Your task to perform on an android device: Go to Amazon Image 0: 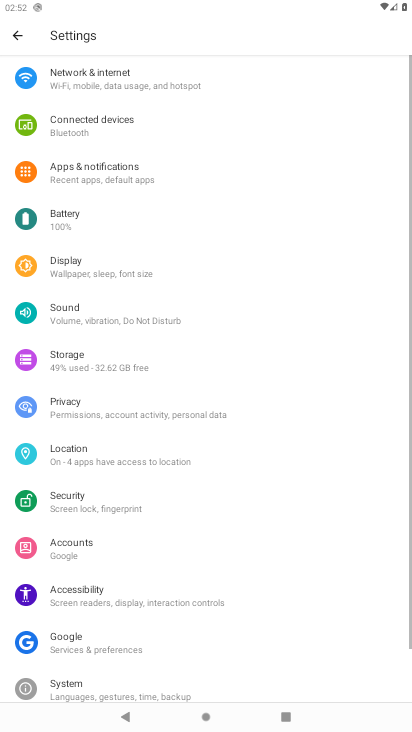
Step 0: press home button
Your task to perform on an android device: Go to Amazon Image 1: 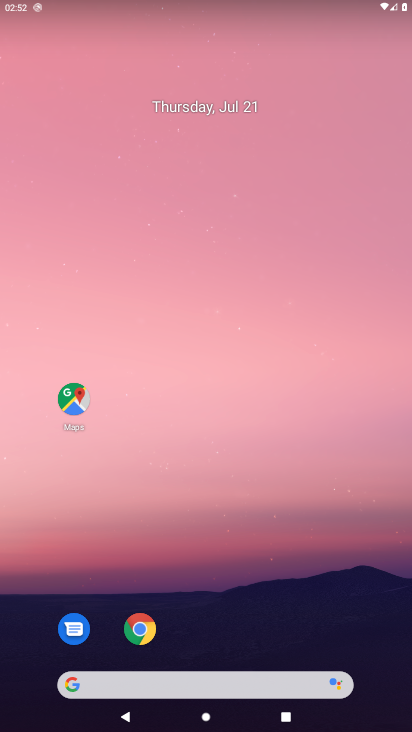
Step 1: click (107, 686)
Your task to perform on an android device: Go to Amazon Image 2: 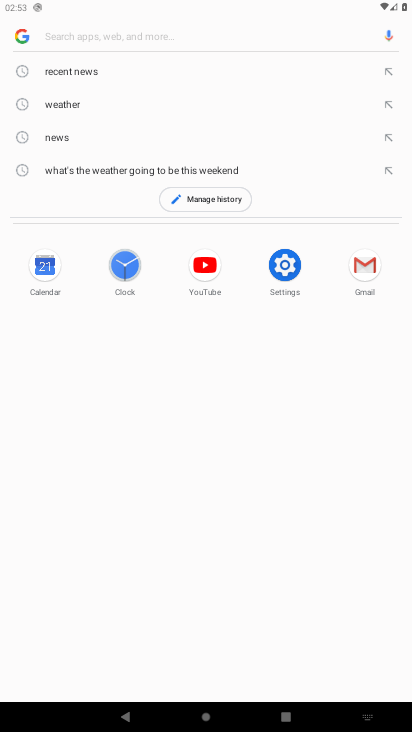
Step 2: type "Amazon"
Your task to perform on an android device: Go to Amazon Image 3: 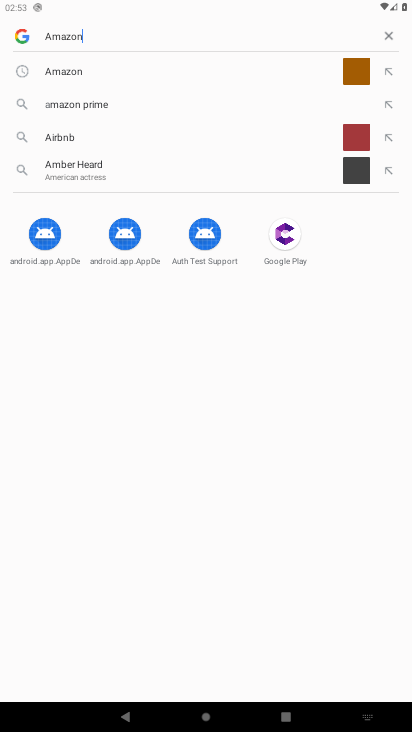
Step 3: type ""
Your task to perform on an android device: Go to Amazon Image 4: 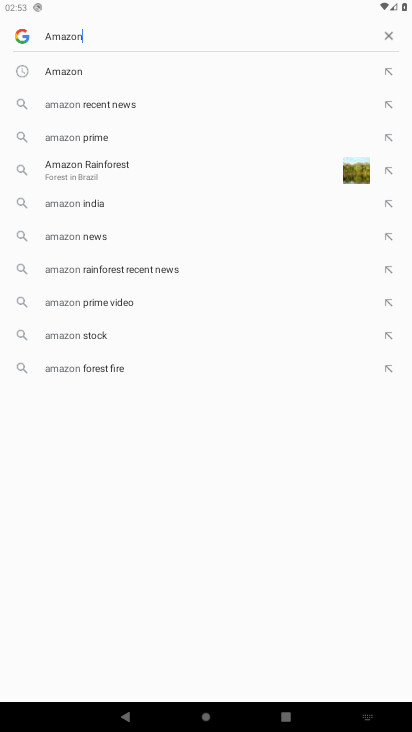
Step 4: click (55, 70)
Your task to perform on an android device: Go to Amazon Image 5: 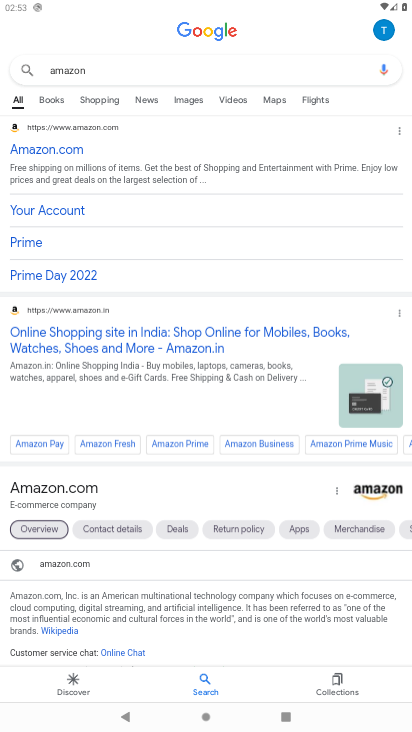
Step 5: task complete